Your task to perform on an android device: see tabs open on other devices in the chrome app Image 0: 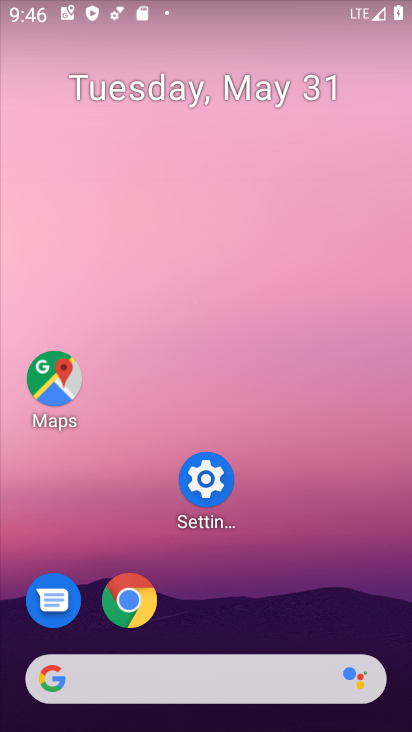
Step 0: press home button
Your task to perform on an android device: see tabs open on other devices in the chrome app Image 1: 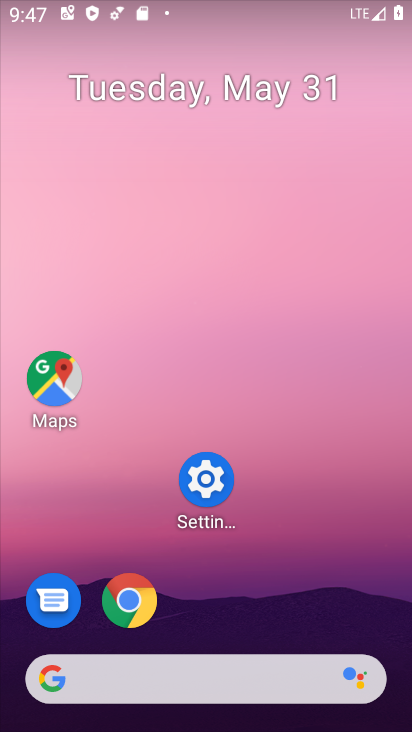
Step 1: click (121, 599)
Your task to perform on an android device: see tabs open on other devices in the chrome app Image 2: 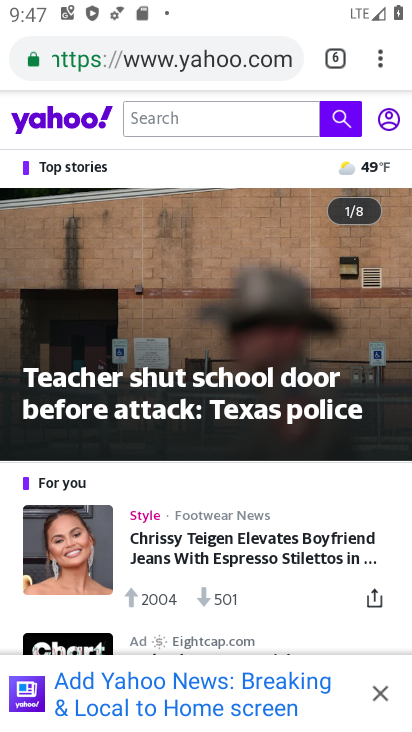
Step 2: click (376, 71)
Your task to perform on an android device: see tabs open on other devices in the chrome app Image 3: 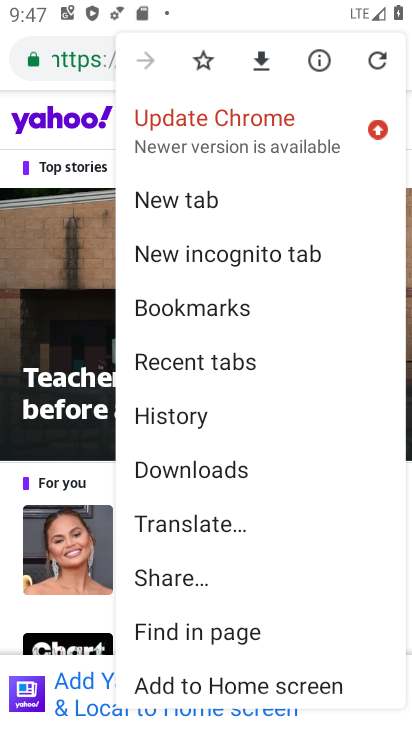
Step 3: click (188, 196)
Your task to perform on an android device: see tabs open on other devices in the chrome app Image 4: 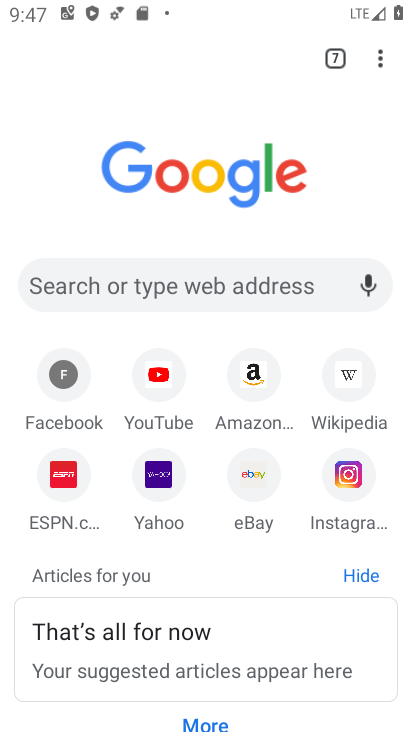
Step 4: task complete